Your task to perform on an android device: remove spam from my inbox in the gmail app Image 0: 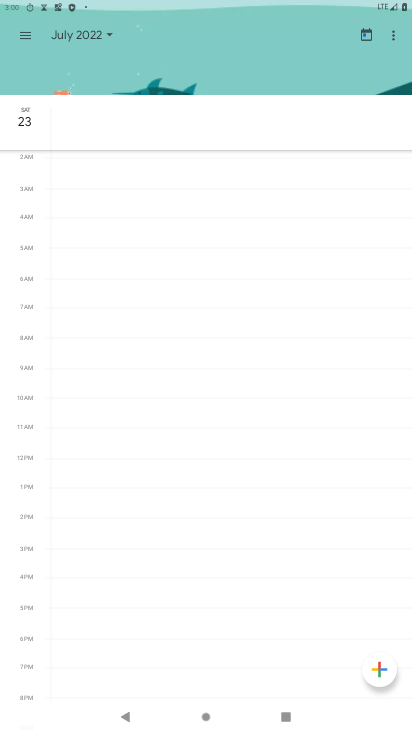
Step 0: press home button
Your task to perform on an android device: remove spam from my inbox in the gmail app Image 1: 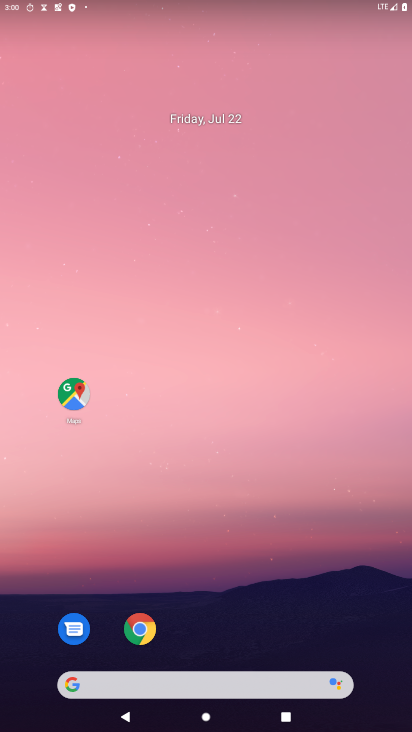
Step 1: drag from (155, 685) to (264, 133)
Your task to perform on an android device: remove spam from my inbox in the gmail app Image 2: 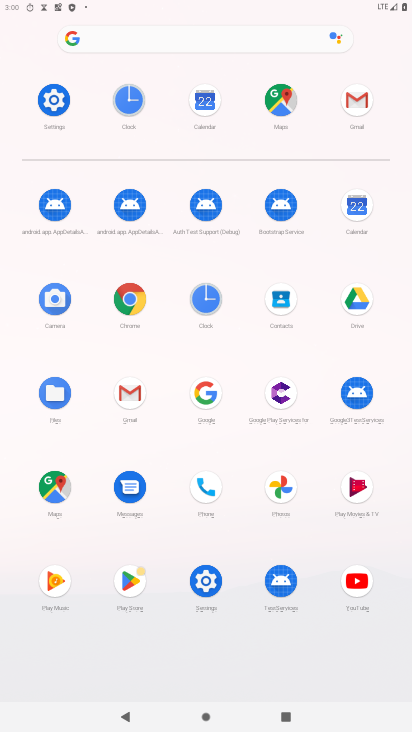
Step 2: click (126, 382)
Your task to perform on an android device: remove spam from my inbox in the gmail app Image 3: 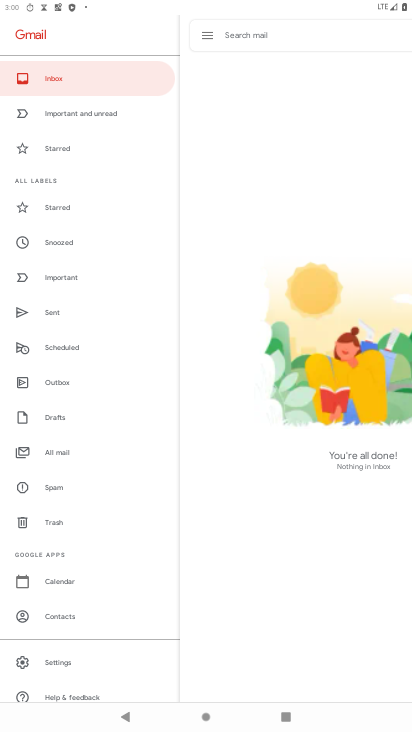
Step 3: click (69, 482)
Your task to perform on an android device: remove spam from my inbox in the gmail app Image 4: 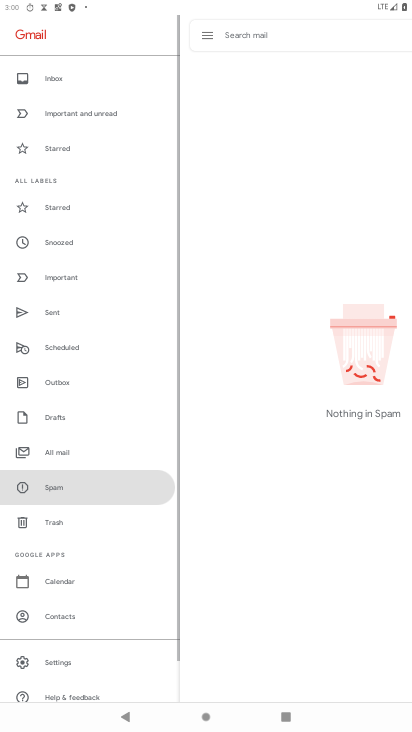
Step 4: task complete